Your task to perform on an android device: make emails show in primary in the gmail app Image 0: 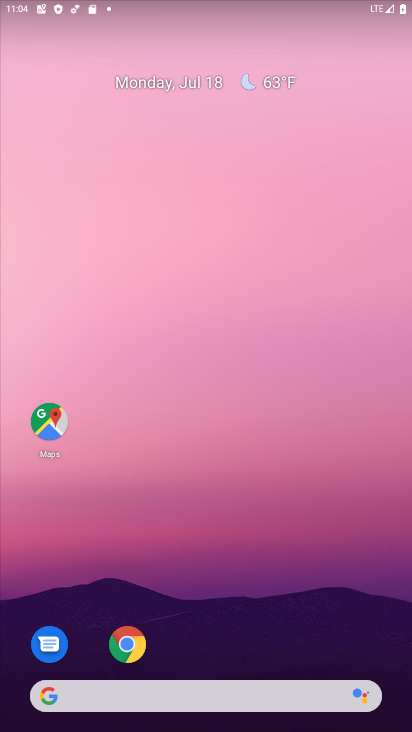
Step 0: drag from (302, 589) to (254, 0)
Your task to perform on an android device: make emails show in primary in the gmail app Image 1: 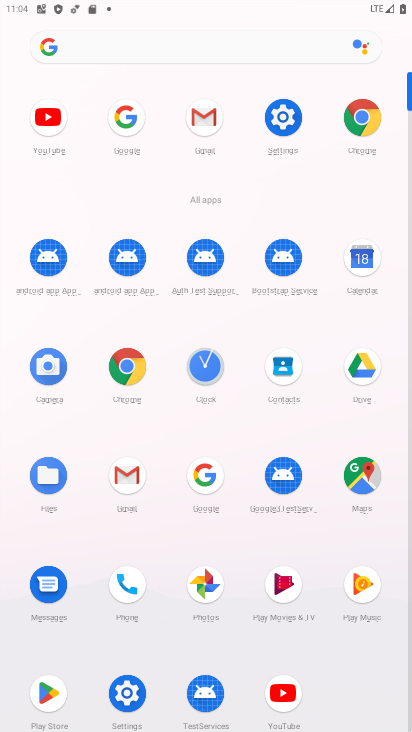
Step 1: click (201, 117)
Your task to perform on an android device: make emails show in primary in the gmail app Image 2: 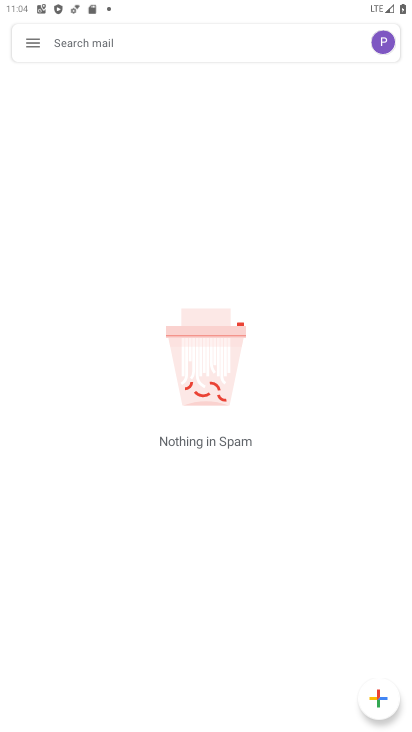
Step 2: click (29, 53)
Your task to perform on an android device: make emails show in primary in the gmail app Image 3: 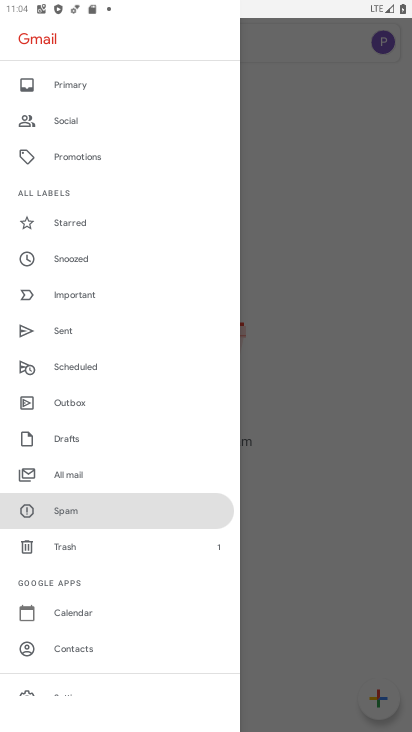
Step 3: click (80, 692)
Your task to perform on an android device: make emails show in primary in the gmail app Image 4: 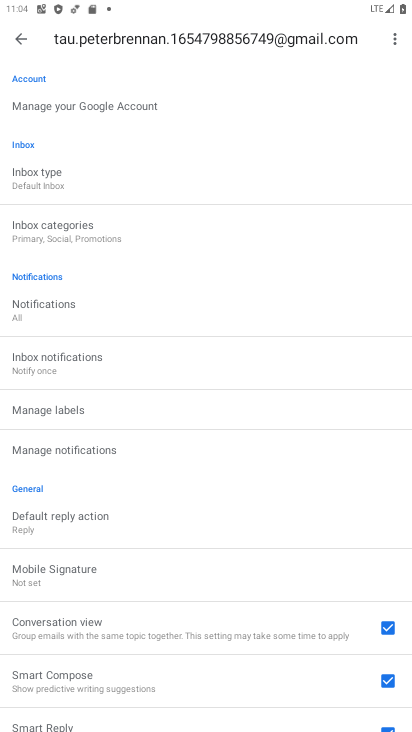
Step 4: click (62, 185)
Your task to perform on an android device: make emails show in primary in the gmail app Image 5: 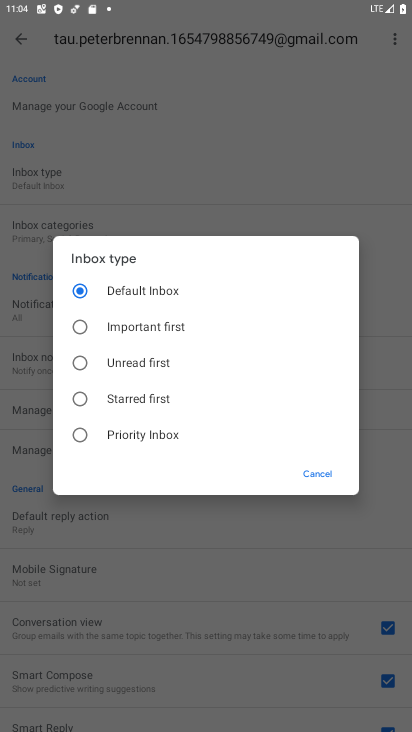
Step 5: click (115, 294)
Your task to perform on an android device: make emails show in primary in the gmail app Image 6: 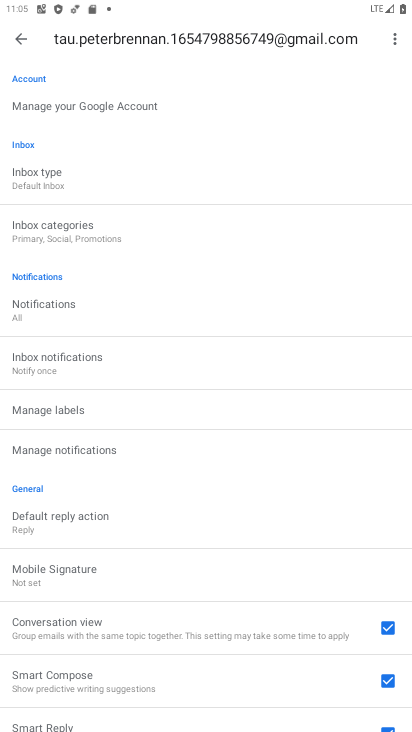
Step 6: task complete